Your task to perform on an android device: stop showing notifications on the lock screen Image 0: 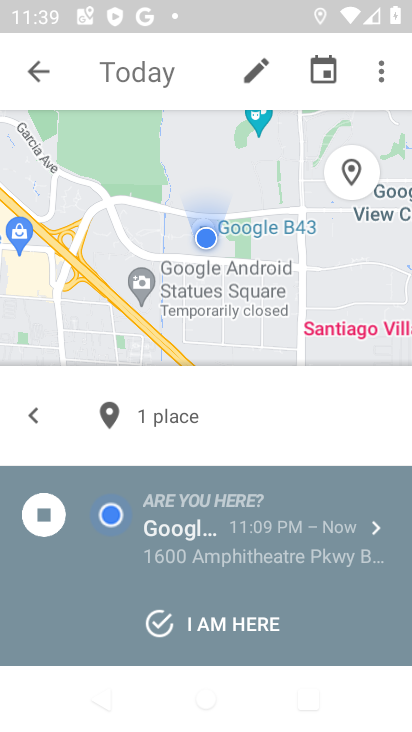
Step 0: press home button
Your task to perform on an android device: stop showing notifications on the lock screen Image 1: 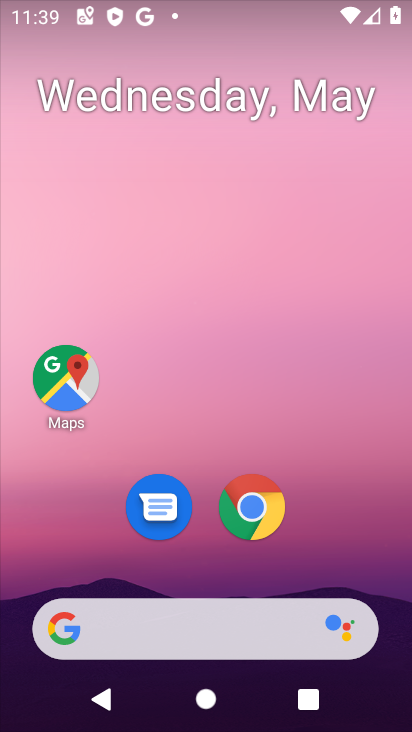
Step 1: drag from (310, 520) to (345, 95)
Your task to perform on an android device: stop showing notifications on the lock screen Image 2: 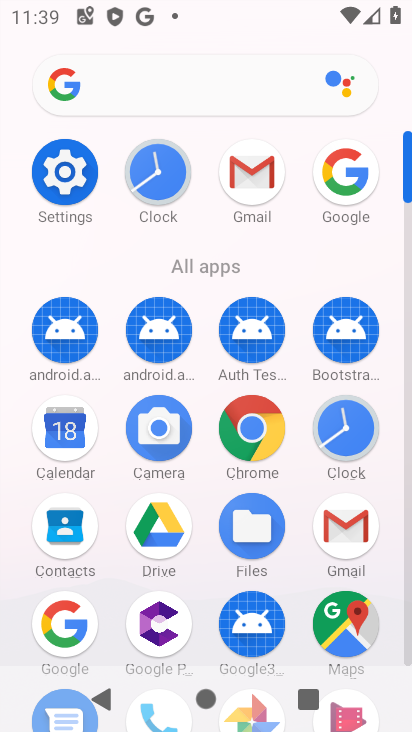
Step 2: click (402, 637)
Your task to perform on an android device: stop showing notifications on the lock screen Image 3: 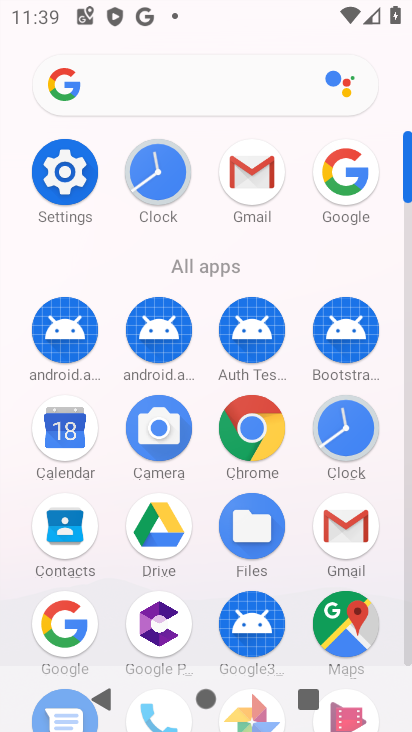
Step 3: click (403, 658)
Your task to perform on an android device: stop showing notifications on the lock screen Image 4: 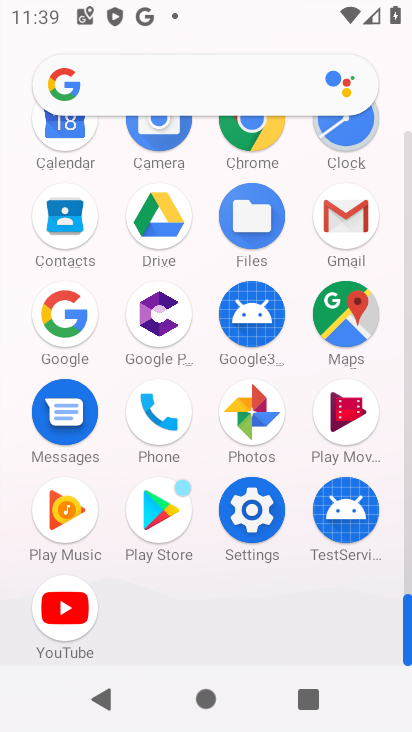
Step 4: click (259, 522)
Your task to perform on an android device: stop showing notifications on the lock screen Image 5: 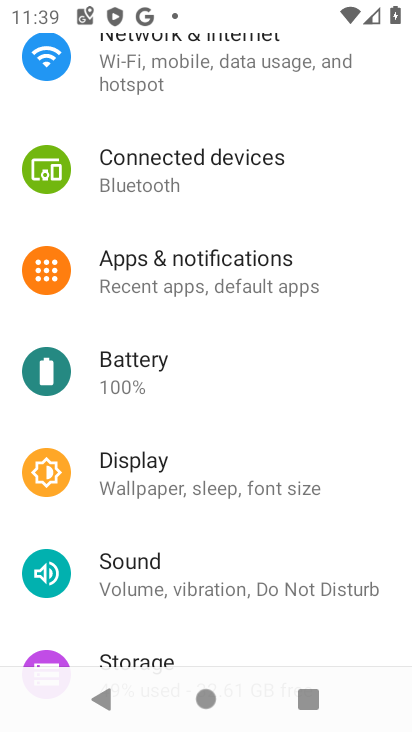
Step 5: drag from (284, 582) to (288, 518)
Your task to perform on an android device: stop showing notifications on the lock screen Image 6: 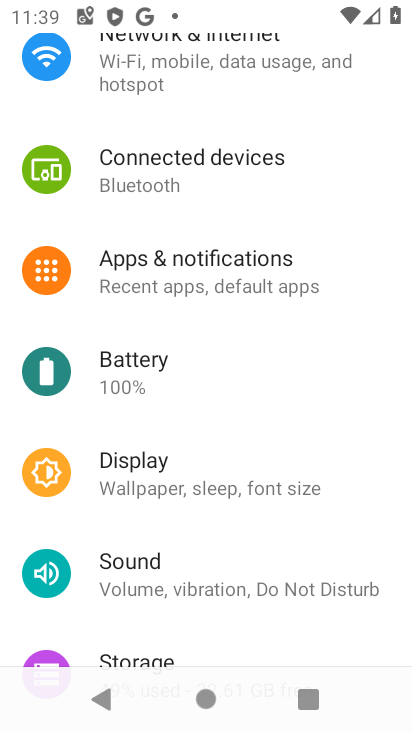
Step 6: drag from (285, 572) to (345, 328)
Your task to perform on an android device: stop showing notifications on the lock screen Image 7: 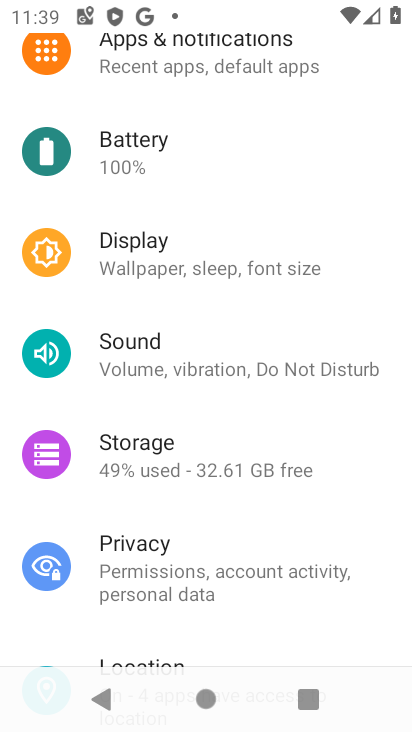
Step 7: click (208, 76)
Your task to perform on an android device: stop showing notifications on the lock screen Image 8: 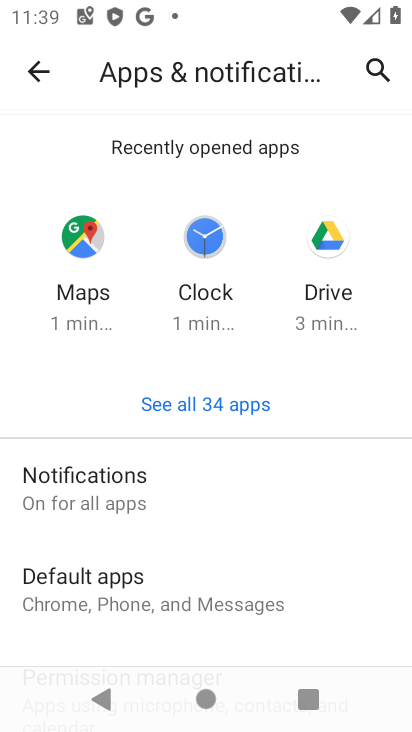
Step 8: click (216, 481)
Your task to perform on an android device: stop showing notifications on the lock screen Image 9: 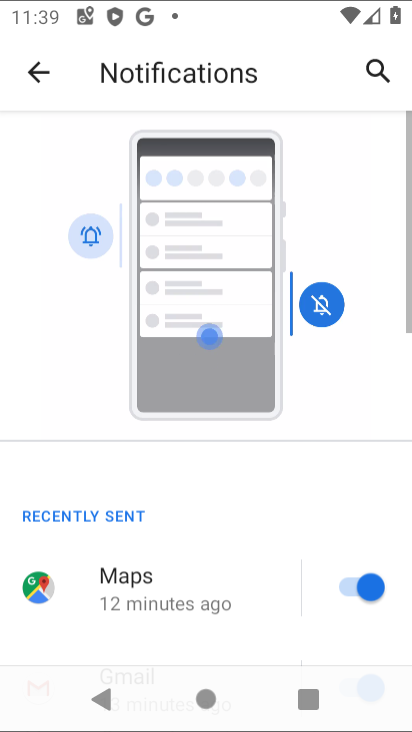
Step 9: drag from (220, 472) to (193, 98)
Your task to perform on an android device: stop showing notifications on the lock screen Image 10: 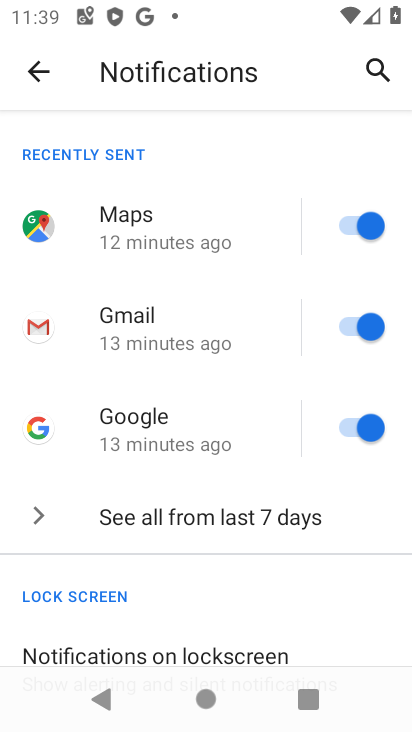
Step 10: drag from (277, 579) to (284, 172)
Your task to perform on an android device: stop showing notifications on the lock screen Image 11: 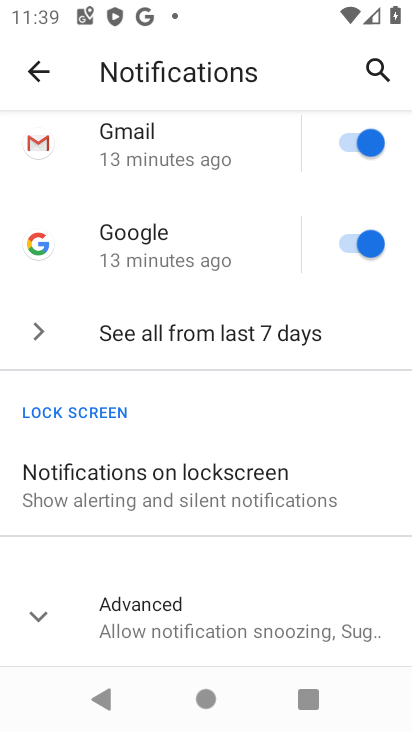
Step 11: click (293, 473)
Your task to perform on an android device: stop showing notifications on the lock screen Image 12: 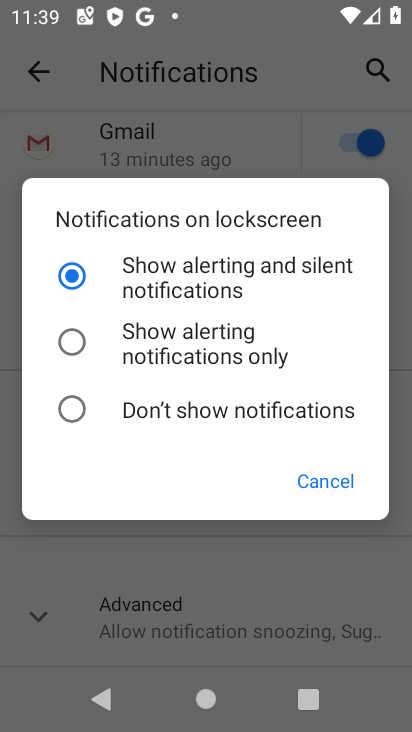
Step 12: click (215, 349)
Your task to perform on an android device: stop showing notifications on the lock screen Image 13: 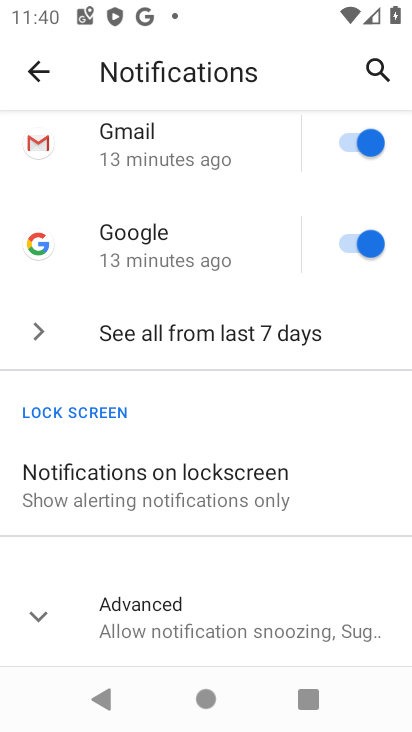
Step 13: click (244, 510)
Your task to perform on an android device: stop showing notifications on the lock screen Image 14: 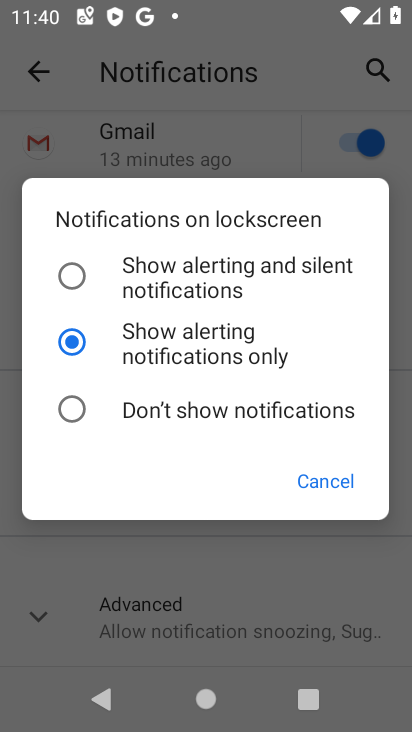
Step 14: click (225, 411)
Your task to perform on an android device: stop showing notifications on the lock screen Image 15: 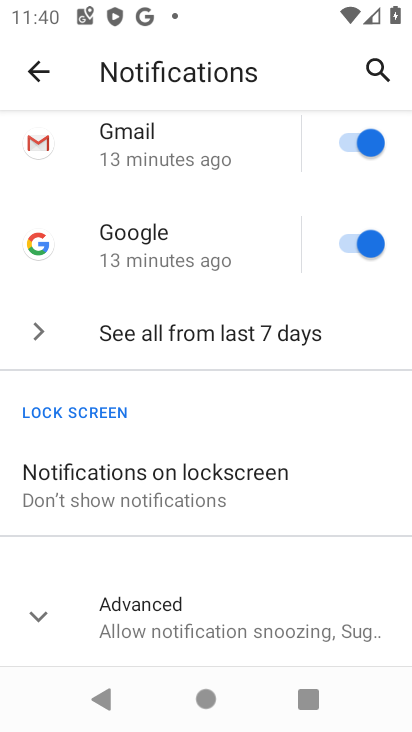
Step 15: task complete